Your task to perform on an android device: toggle airplane mode Image 0: 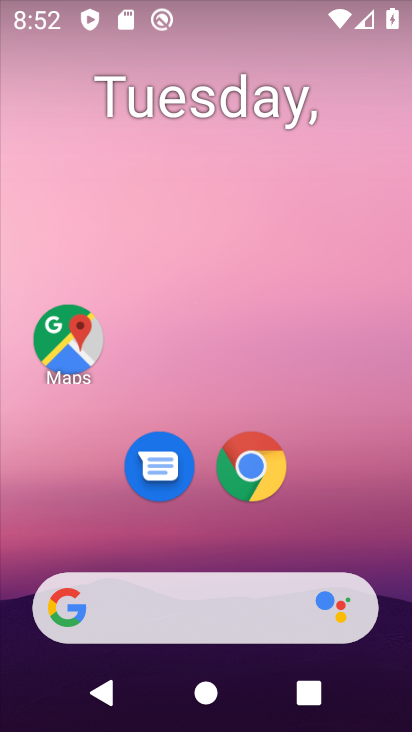
Step 0: drag from (238, 7) to (246, 586)
Your task to perform on an android device: toggle airplane mode Image 1: 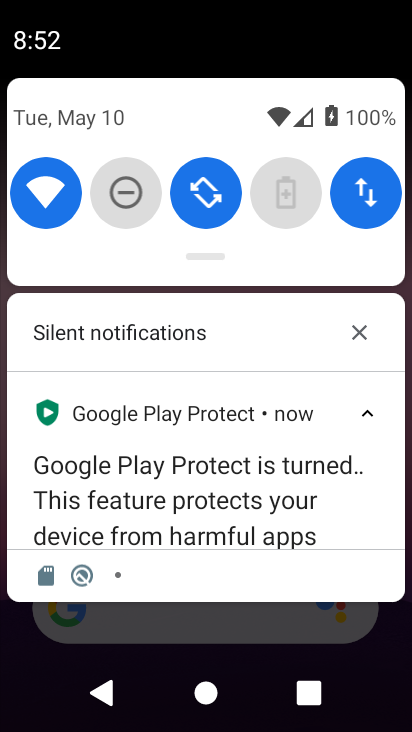
Step 1: drag from (314, 206) to (283, 551)
Your task to perform on an android device: toggle airplane mode Image 2: 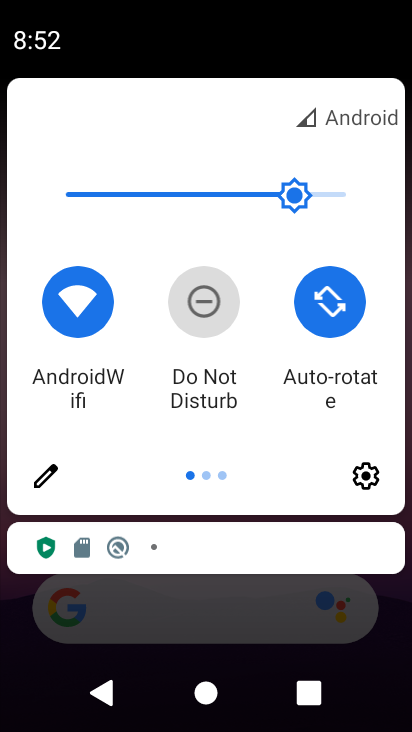
Step 2: drag from (348, 373) to (5, 356)
Your task to perform on an android device: toggle airplane mode Image 3: 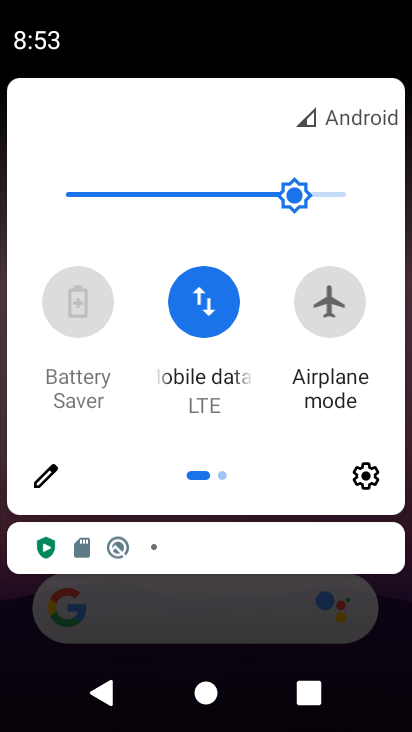
Step 3: drag from (331, 381) to (72, 357)
Your task to perform on an android device: toggle airplane mode Image 4: 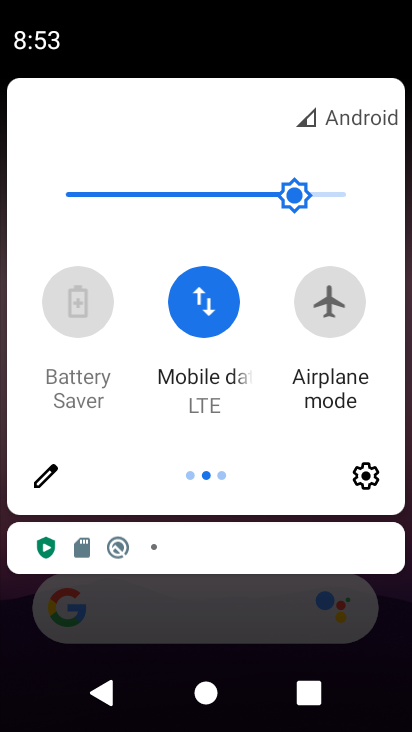
Step 4: click (344, 293)
Your task to perform on an android device: toggle airplane mode Image 5: 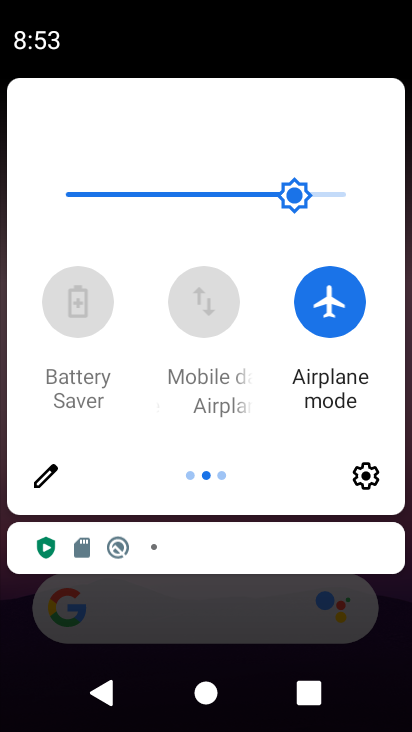
Step 5: task complete